Your task to perform on an android device: Open location settings Image 0: 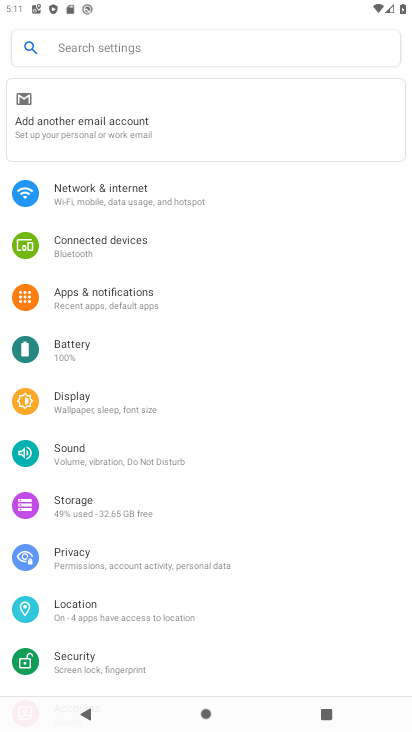
Step 0: press home button
Your task to perform on an android device: Open location settings Image 1: 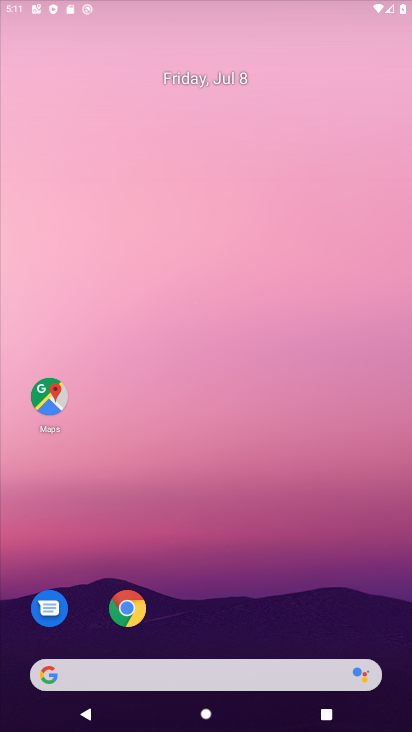
Step 1: drag from (223, 662) to (247, 11)
Your task to perform on an android device: Open location settings Image 2: 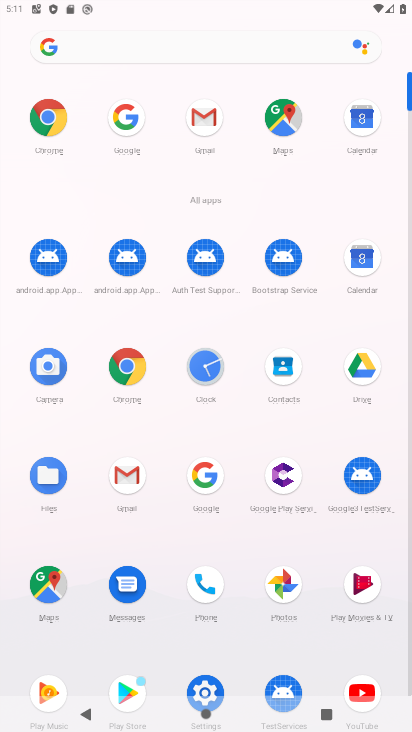
Step 2: click (209, 688)
Your task to perform on an android device: Open location settings Image 3: 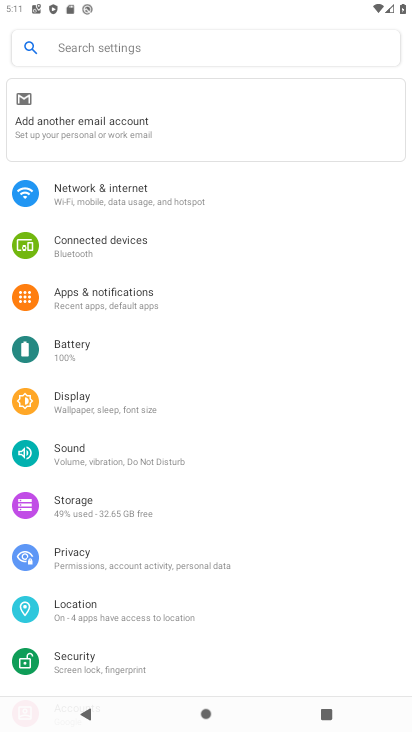
Step 3: click (136, 598)
Your task to perform on an android device: Open location settings Image 4: 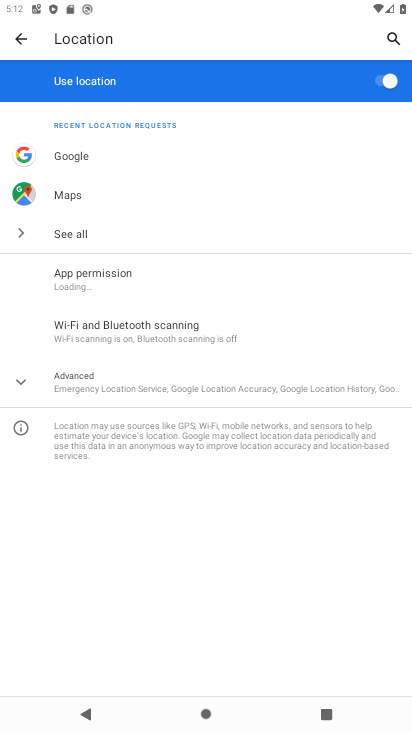
Step 4: click (124, 380)
Your task to perform on an android device: Open location settings Image 5: 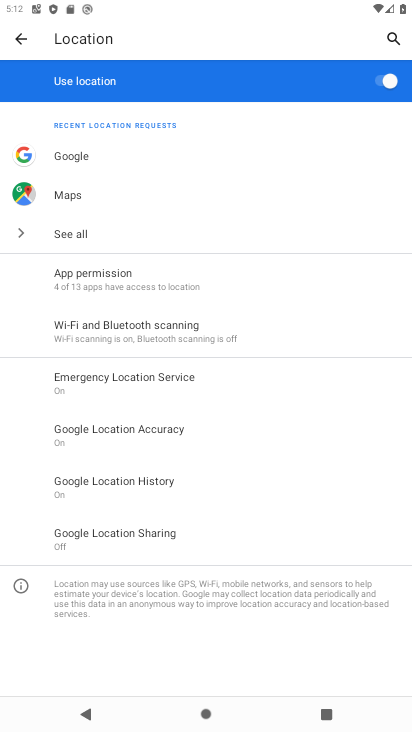
Step 5: task complete